Your task to perform on an android device: Go to Google maps Image 0: 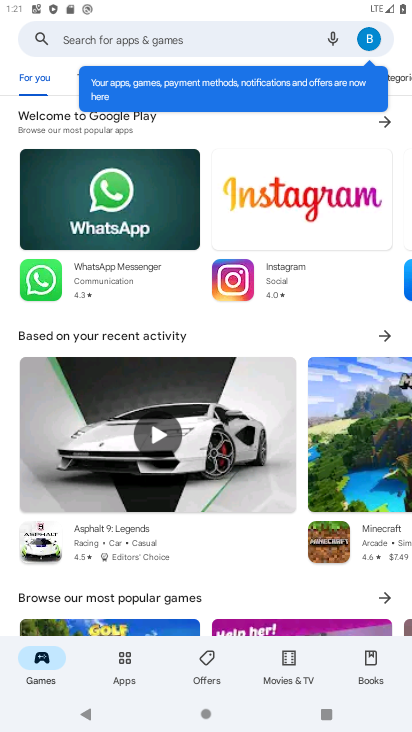
Step 0: press home button
Your task to perform on an android device: Go to Google maps Image 1: 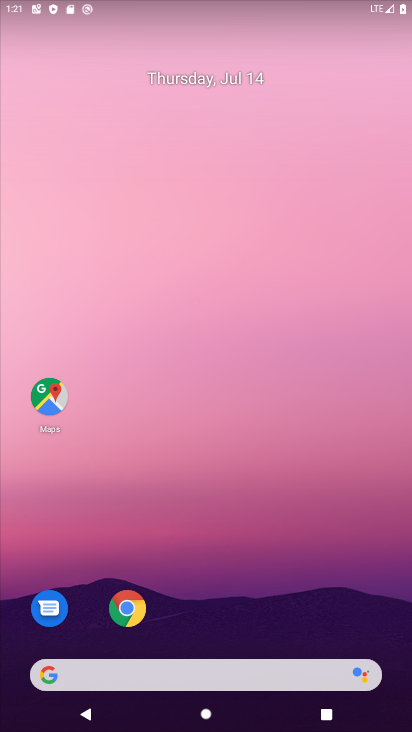
Step 1: click (37, 402)
Your task to perform on an android device: Go to Google maps Image 2: 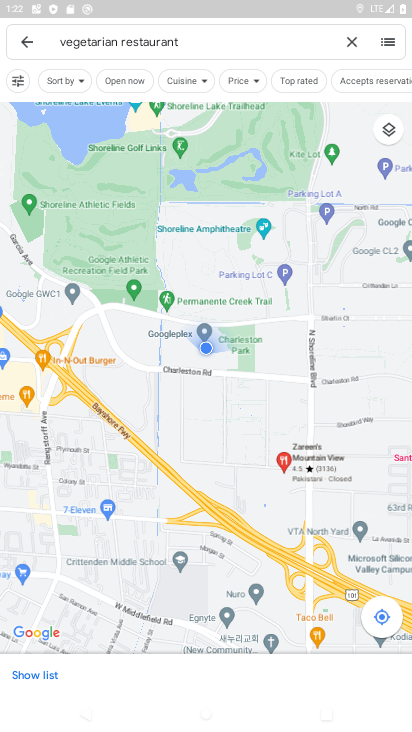
Step 2: task complete